Your task to perform on an android device: turn smart compose on in the gmail app Image 0: 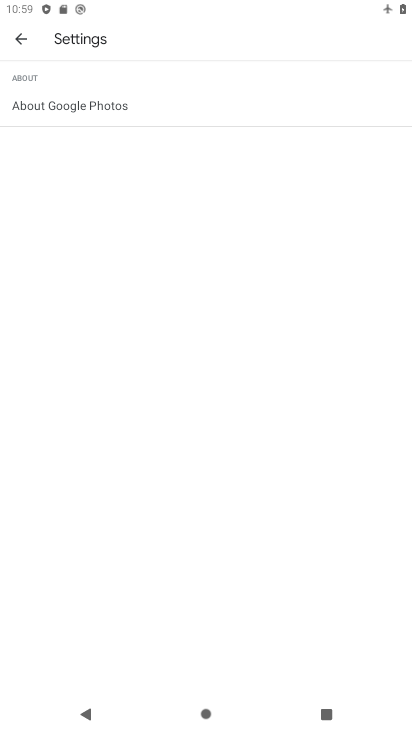
Step 0: press home button
Your task to perform on an android device: turn smart compose on in the gmail app Image 1: 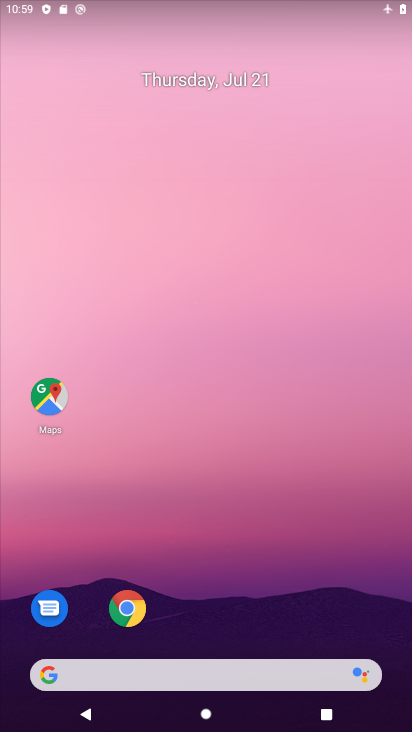
Step 1: drag from (281, 637) to (240, 208)
Your task to perform on an android device: turn smart compose on in the gmail app Image 2: 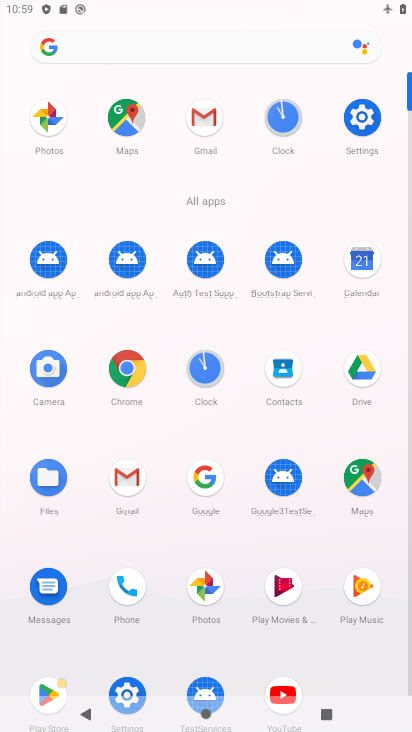
Step 2: click (207, 118)
Your task to perform on an android device: turn smart compose on in the gmail app Image 3: 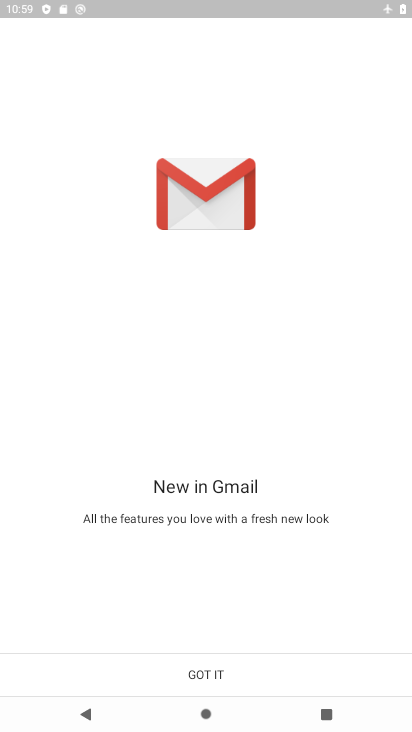
Step 3: click (225, 675)
Your task to perform on an android device: turn smart compose on in the gmail app Image 4: 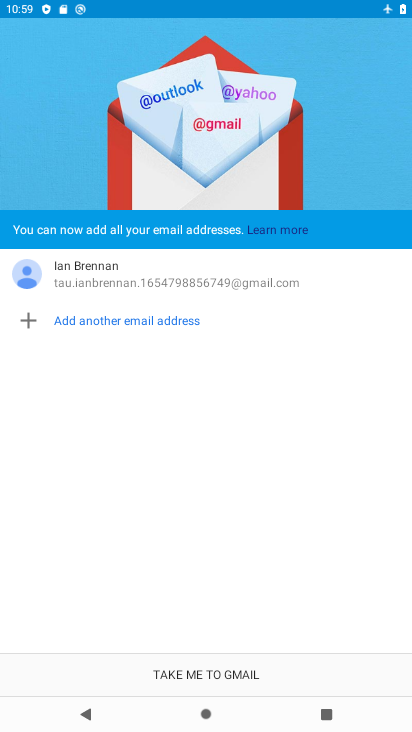
Step 4: click (225, 675)
Your task to perform on an android device: turn smart compose on in the gmail app Image 5: 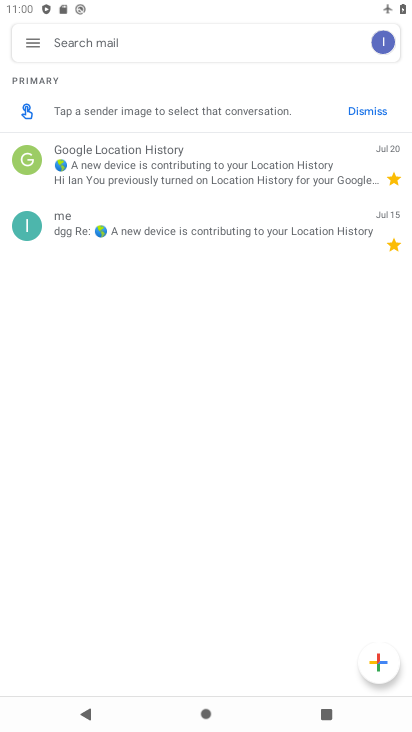
Step 5: click (34, 42)
Your task to perform on an android device: turn smart compose on in the gmail app Image 6: 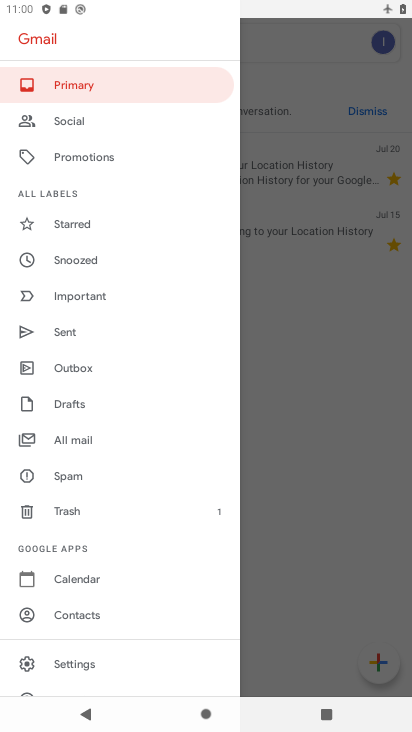
Step 6: click (100, 659)
Your task to perform on an android device: turn smart compose on in the gmail app Image 7: 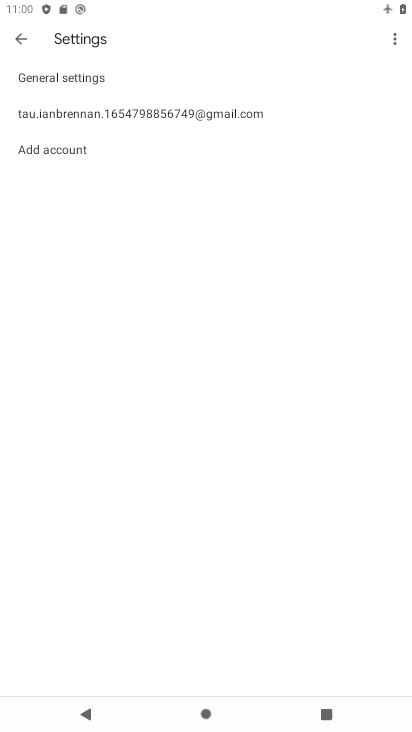
Step 7: click (133, 114)
Your task to perform on an android device: turn smart compose on in the gmail app Image 8: 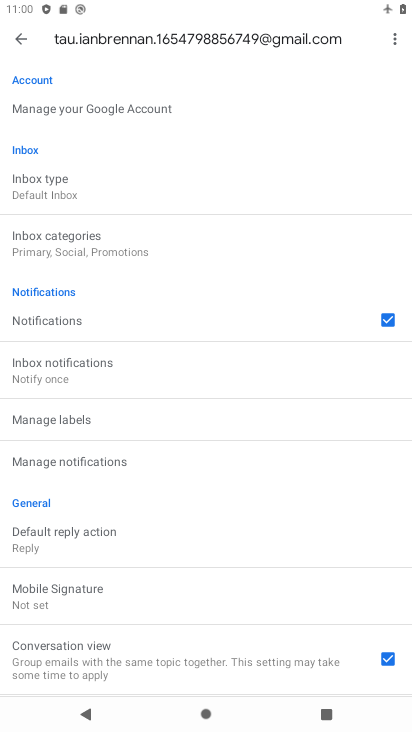
Step 8: task complete